Your task to perform on an android device: change timer sound Image 0: 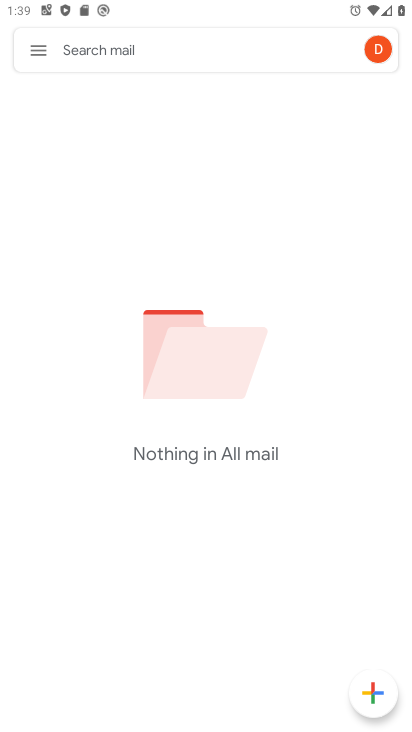
Step 0: press home button
Your task to perform on an android device: change timer sound Image 1: 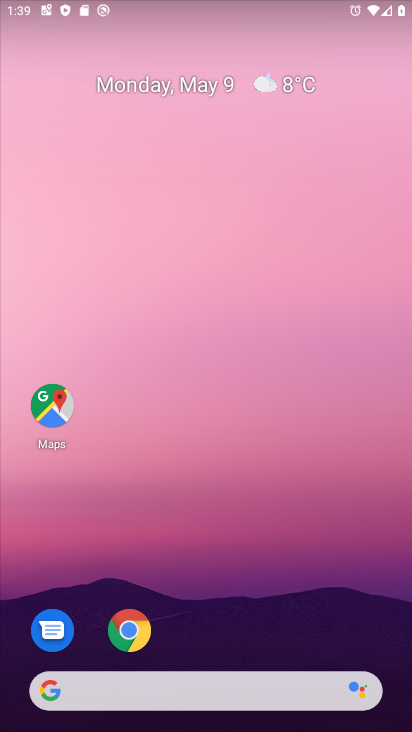
Step 1: drag from (323, 631) to (337, 17)
Your task to perform on an android device: change timer sound Image 2: 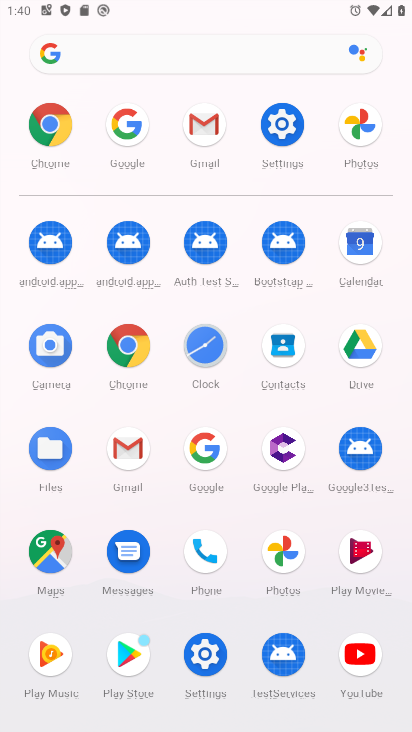
Step 2: click (206, 351)
Your task to perform on an android device: change timer sound Image 3: 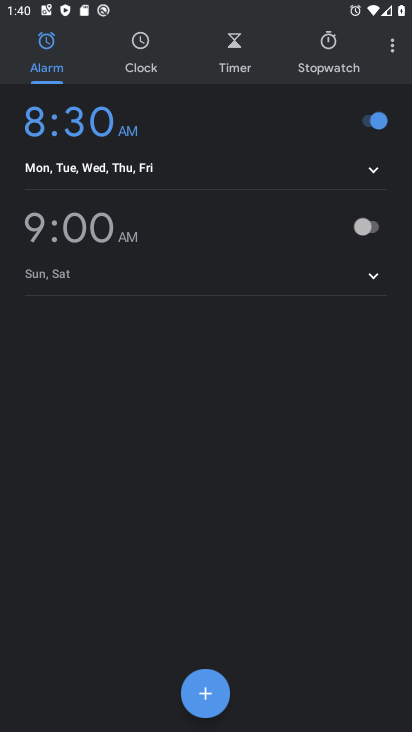
Step 3: click (394, 40)
Your task to perform on an android device: change timer sound Image 4: 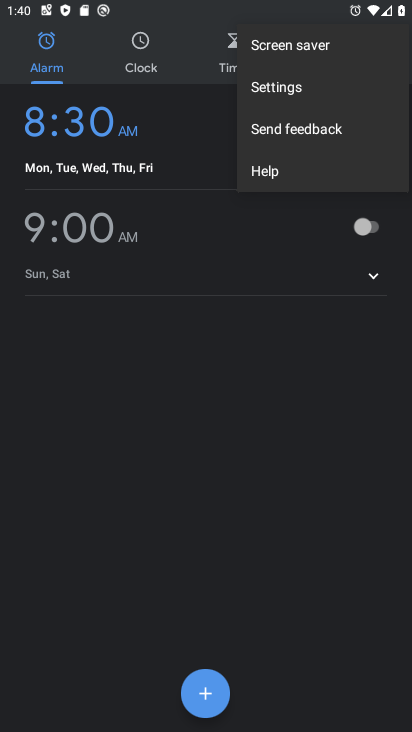
Step 4: click (317, 90)
Your task to perform on an android device: change timer sound Image 5: 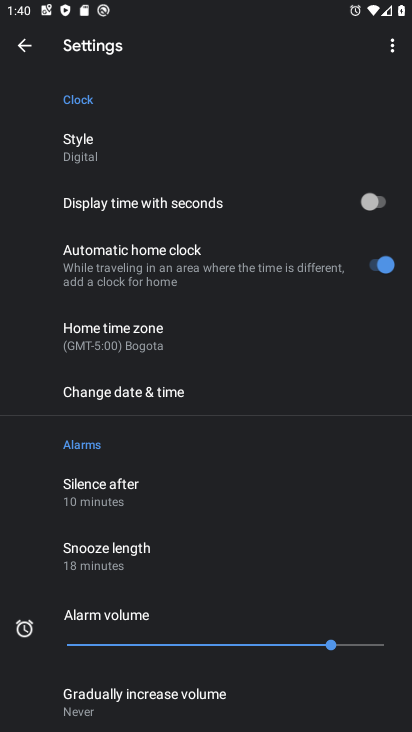
Step 5: drag from (185, 578) to (235, 180)
Your task to perform on an android device: change timer sound Image 6: 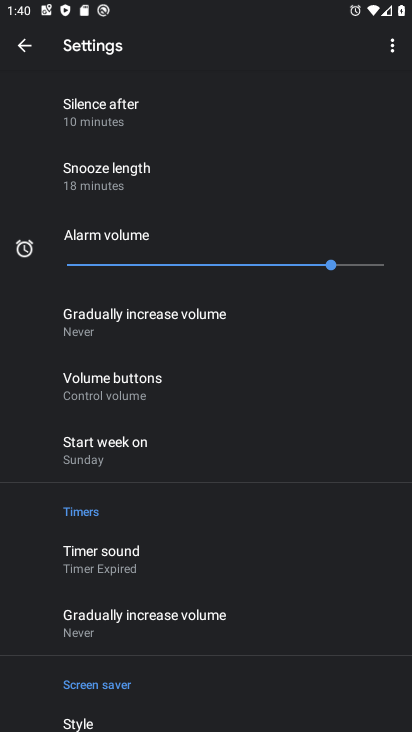
Step 6: click (186, 553)
Your task to perform on an android device: change timer sound Image 7: 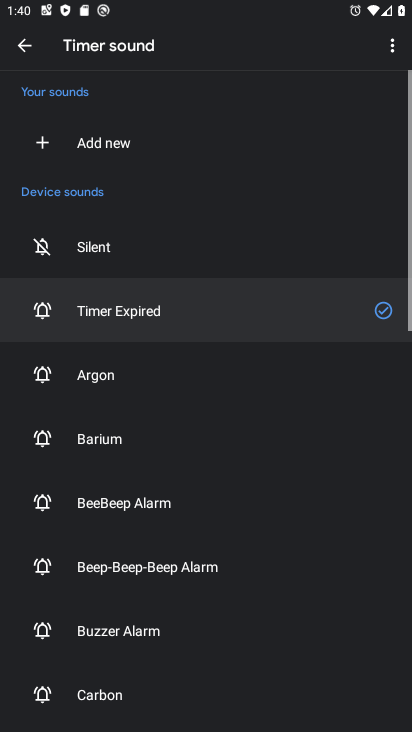
Step 7: click (129, 421)
Your task to perform on an android device: change timer sound Image 8: 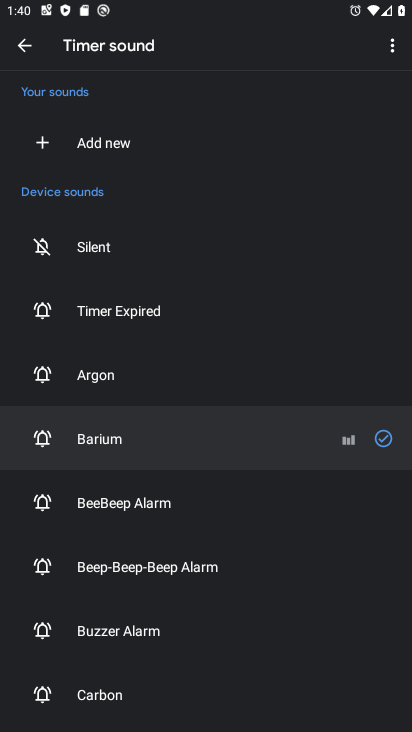
Step 8: task complete